Your task to perform on an android device: Open Yahoo.com Image 0: 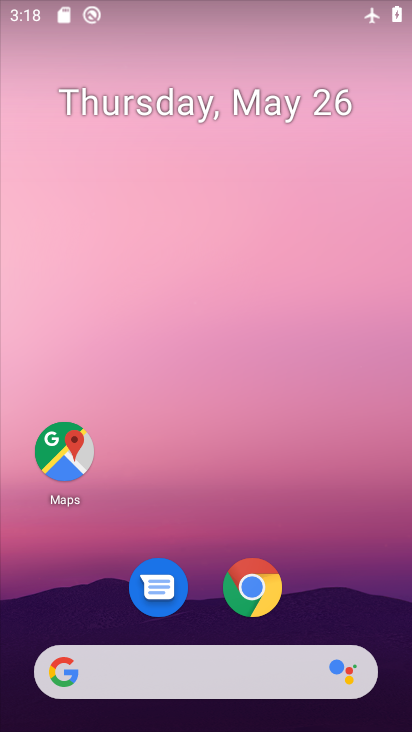
Step 0: drag from (304, 671) to (213, 213)
Your task to perform on an android device: Open Yahoo.com Image 1: 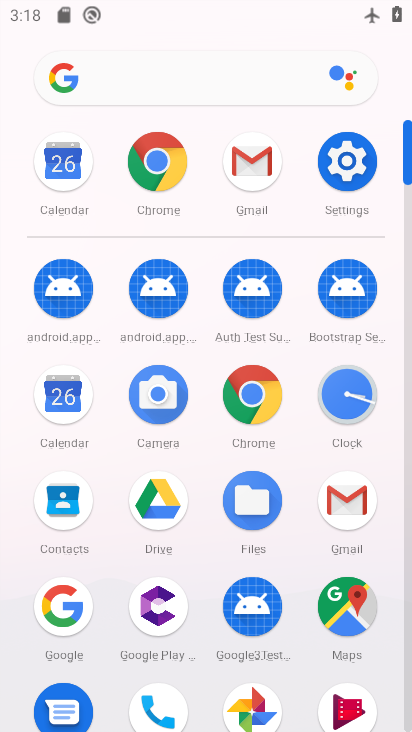
Step 1: click (154, 158)
Your task to perform on an android device: Open Yahoo.com Image 2: 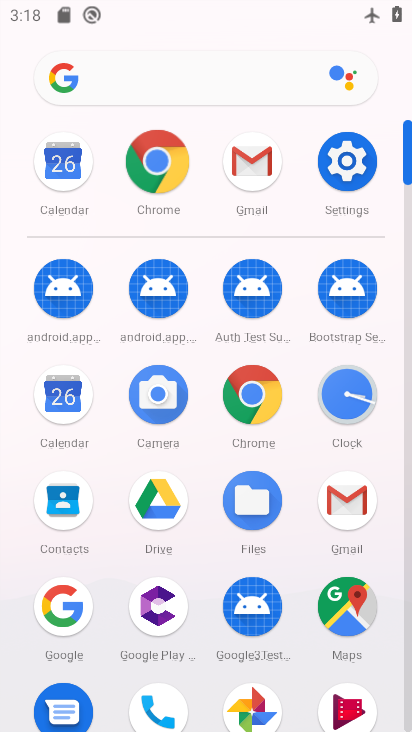
Step 2: click (154, 158)
Your task to perform on an android device: Open Yahoo.com Image 3: 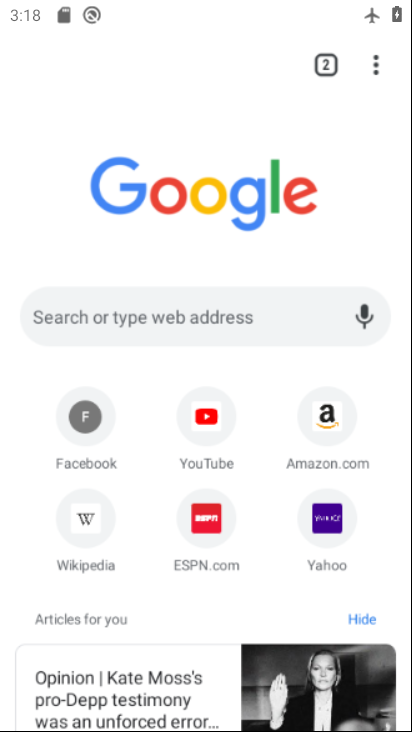
Step 3: click (154, 158)
Your task to perform on an android device: Open Yahoo.com Image 4: 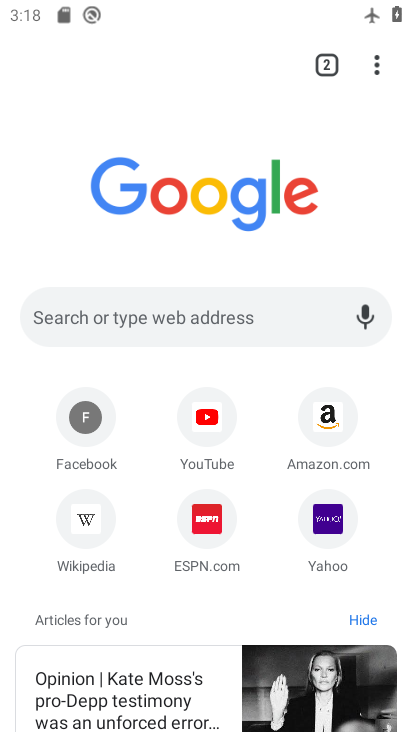
Step 4: click (321, 517)
Your task to perform on an android device: Open Yahoo.com Image 5: 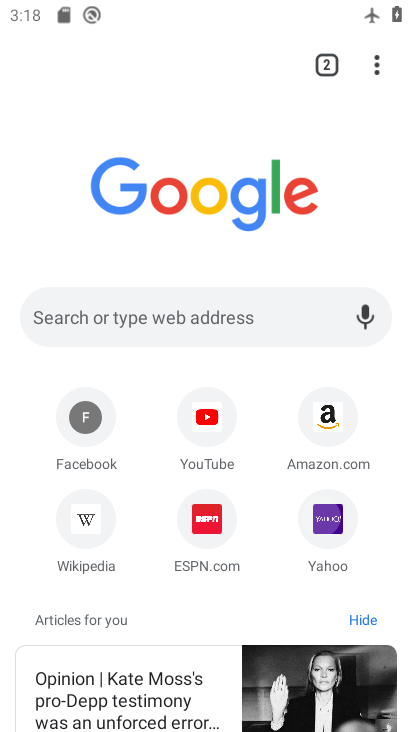
Step 5: click (321, 517)
Your task to perform on an android device: Open Yahoo.com Image 6: 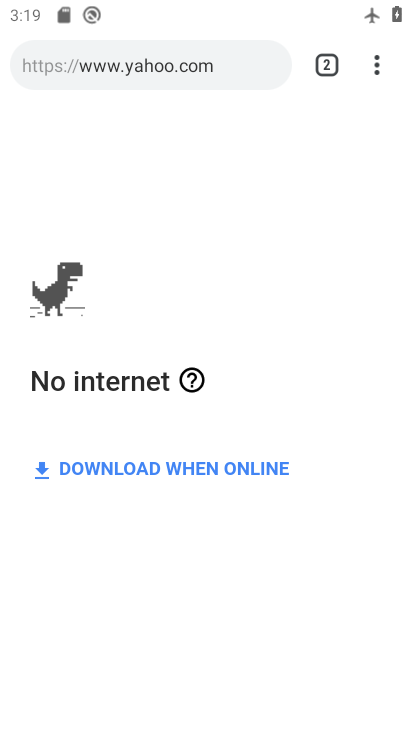
Step 6: task complete